Your task to perform on an android device: Open calendar and show me the second week of next month Image 0: 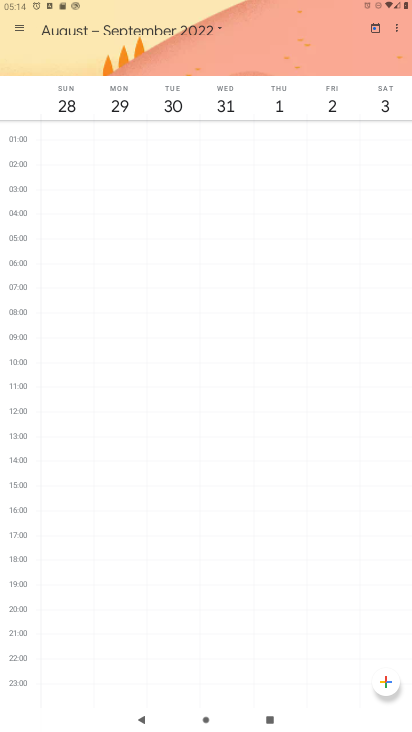
Step 0: press home button
Your task to perform on an android device: Open calendar and show me the second week of next month Image 1: 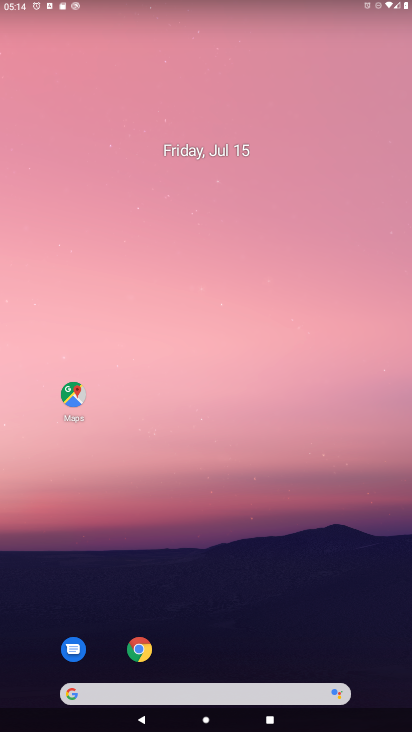
Step 1: drag from (388, 667) to (338, 3)
Your task to perform on an android device: Open calendar and show me the second week of next month Image 2: 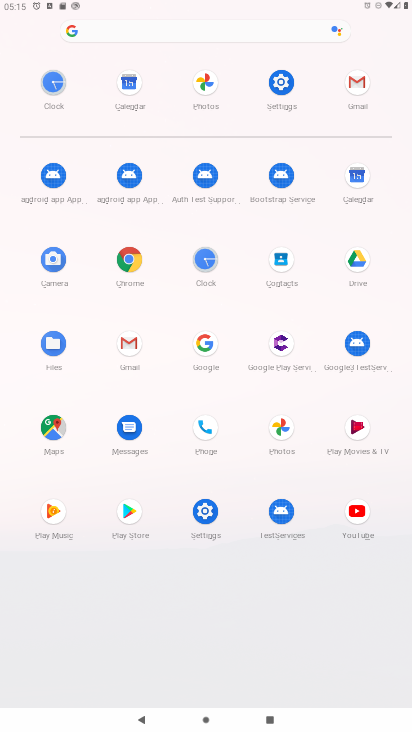
Step 2: click (355, 173)
Your task to perform on an android device: Open calendar and show me the second week of next month Image 3: 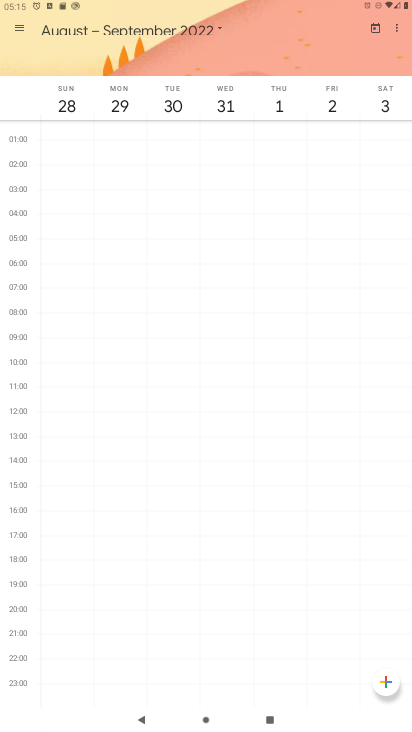
Step 3: click (215, 24)
Your task to perform on an android device: Open calendar and show me the second week of next month Image 4: 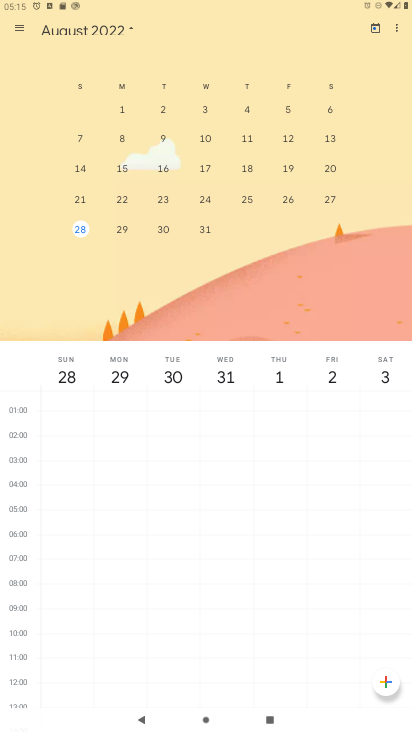
Step 4: click (75, 166)
Your task to perform on an android device: Open calendar and show me the second week of next month Image 5: 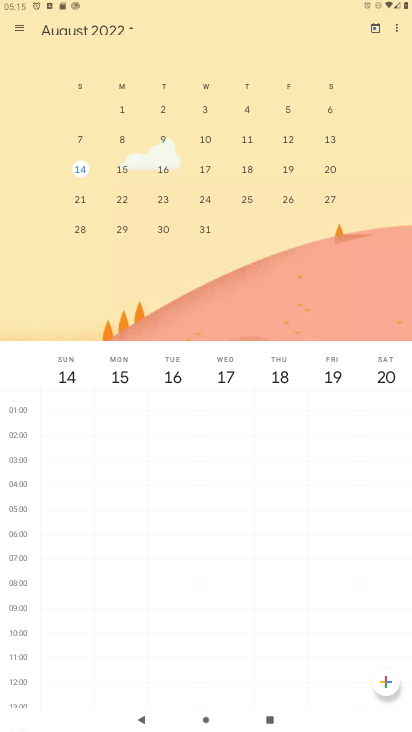
Step 5: task complete